Your task to perform on an android device: change text size in settings app Image 0: 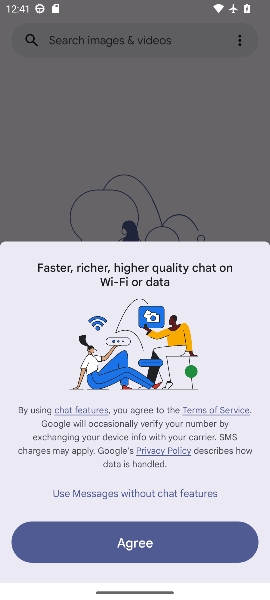
Step 0: press home button
Your task to perform on an android device: change text size in settings app Image 1: 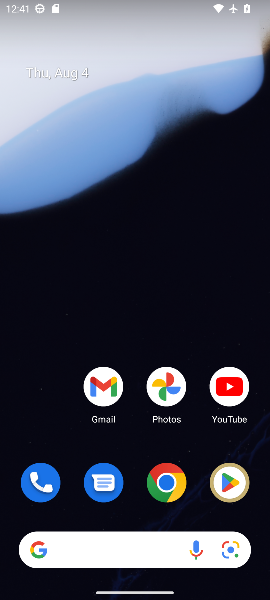
Step 1: drag from (139, 286) to (145, 260)
Your task to perform on an android device: change text size in settings app Image 2: 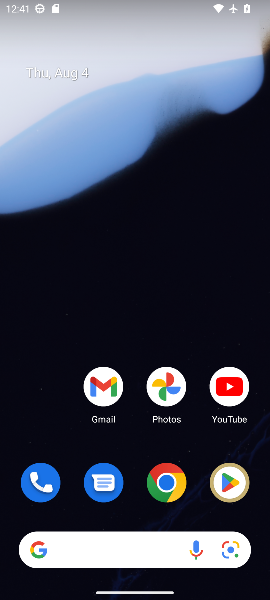
Step 2: drag from (127, 442) to (124, 135)
Your task to perform on an android device: change text size in settings app Image 3: 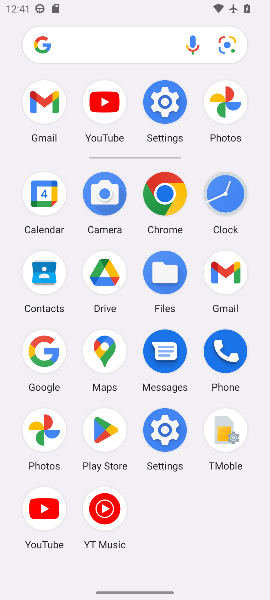
Step 3: click (157, 103)
Your task to perform on an android device: change text size in settings app Image 4: 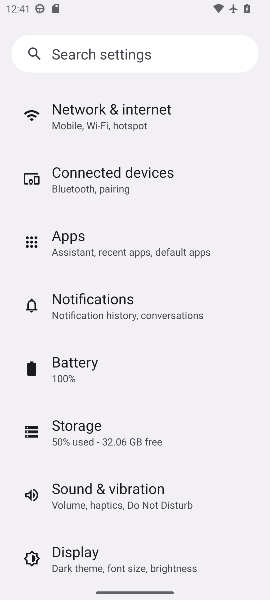
Step 4: click (96, 545)
Your task to perform on an android device: change text size in settings app Image 5: 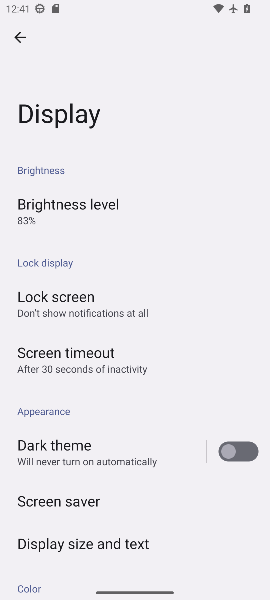
Step 5: drag from (103, 510) to (108, 253)
Your task to perform on an android device: change text size in settings app Image 6: 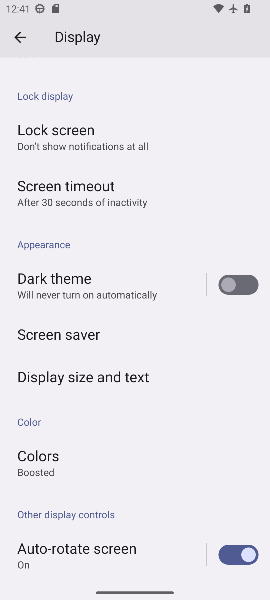
Step 6: click (93, 380)
Your task to perform on an android device: change text size in settings app Image 7: 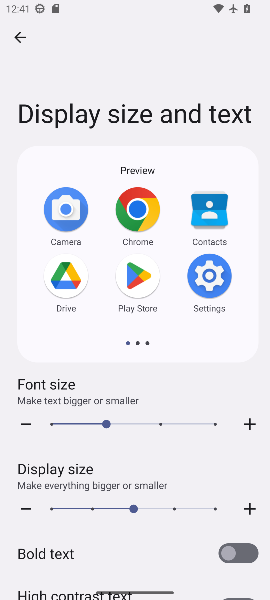
Step 7: click (96, 390)
Your task to perform on an android device: change text size in settings app Image 8: 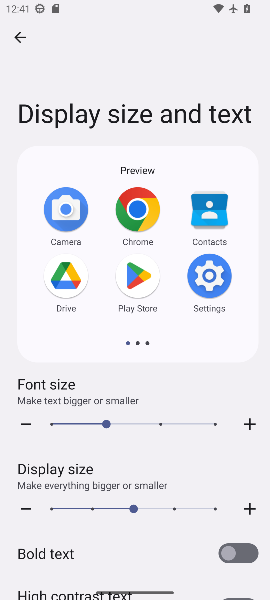
Step 8: click (213, 420)
Your task to perform on an android device: change text size in settings app Image 9: 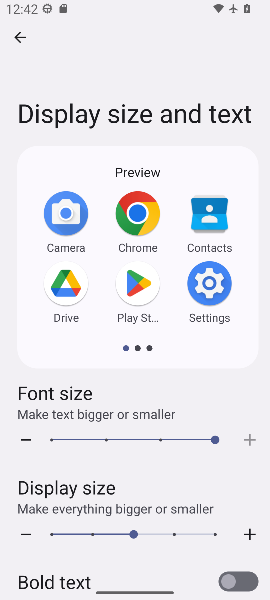
Step 9: task complete